Your task to perform on an android device: What's on my calendar today? Image 0: 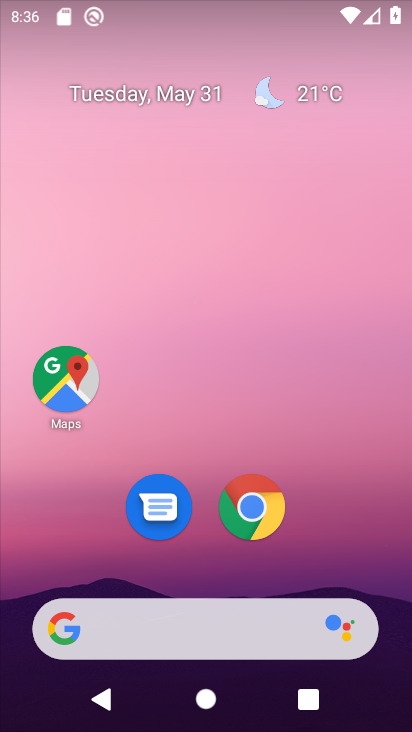
Step 0: drag from (263, 688) to (158, 118)
Your task to perform on an android device: What's on my calendar today? Image 1: 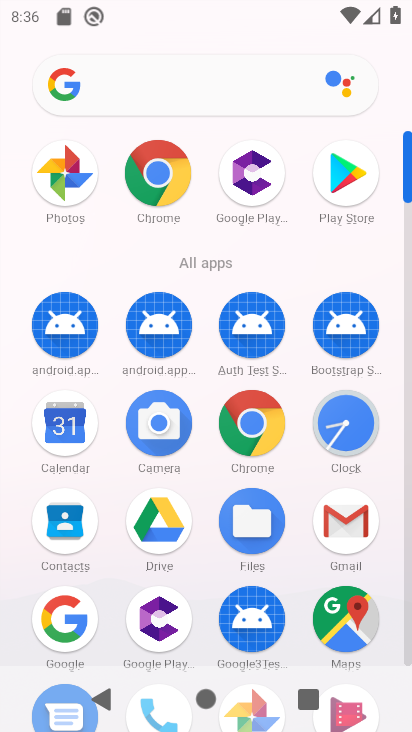
Step 1: click (57, 426)
Your task to perform on an android device: What's on my calendar today? Image 2: 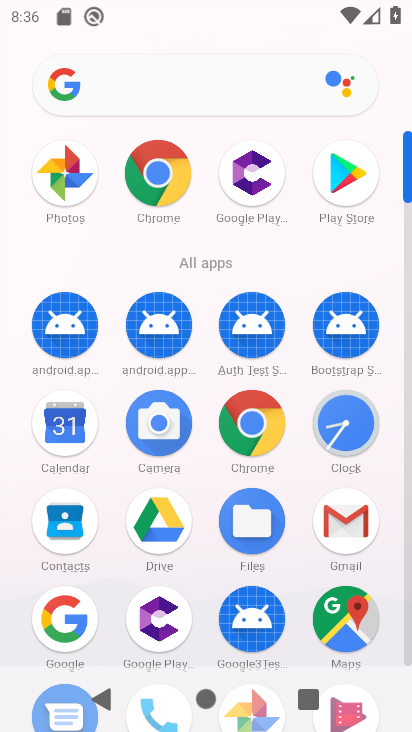
Step 2: click (58, 425)
Your task to perform on an android device: What's on my calendar today? Image 3: 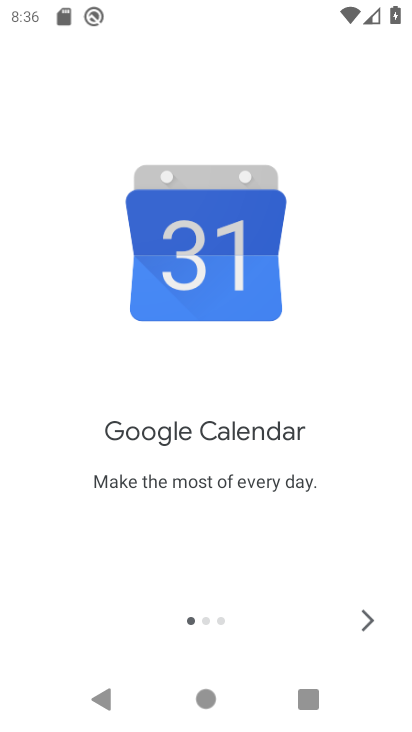
Step 3: click (379, 616)
Your task to perform on an android device: What's on my calendar today? Image 4: 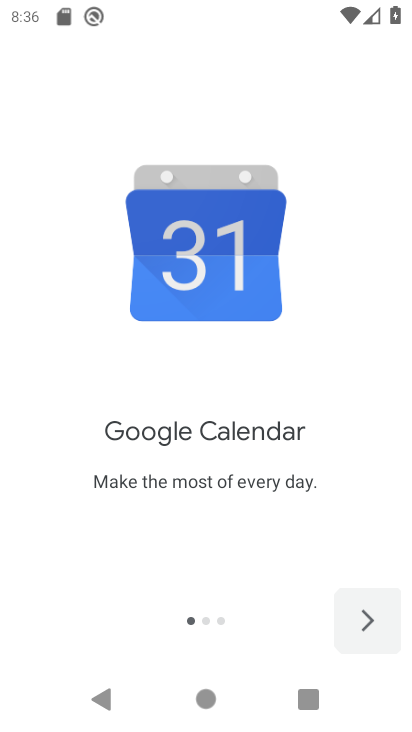
Step 4: click (379, 616)
Your task to perform on an android device: What's on my calendar today? Image 5: 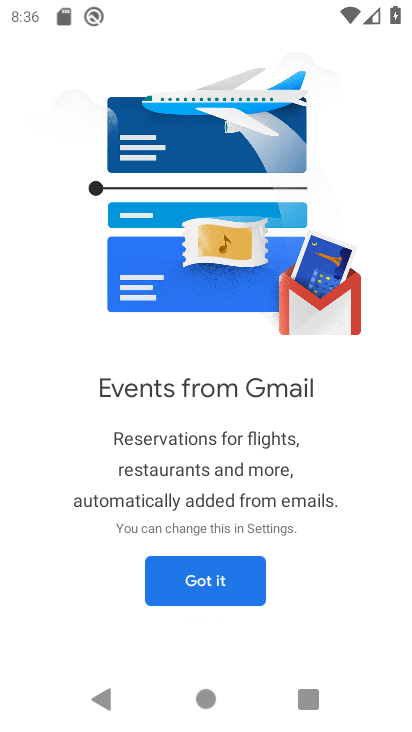
Step 5: click (378, 622)
Your task to perform on an android device: What's on my calendar today? Image 6: 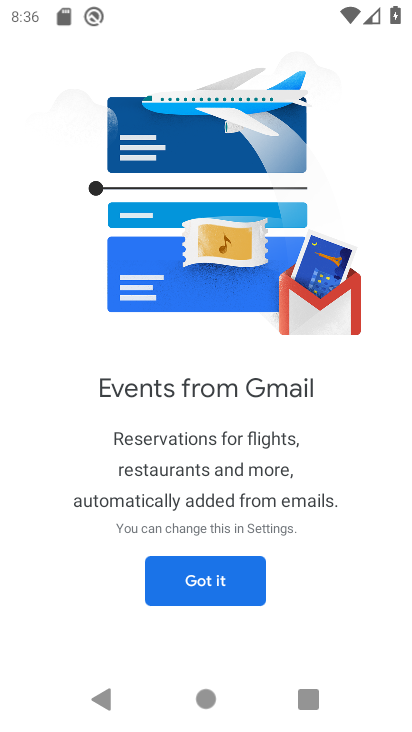
Step 6: click (216, 577)
Your task to perform on an android device: What's on my calendar today? Image 7: 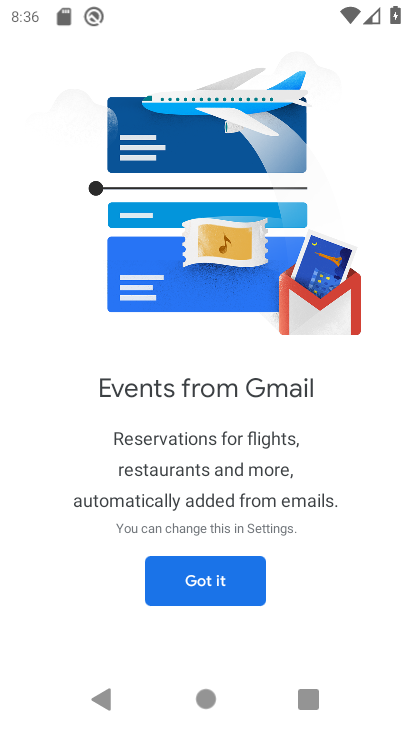
Step 7: click (215, 576)
Your task to perform on an android device: What's on my calendar today? Image 8: 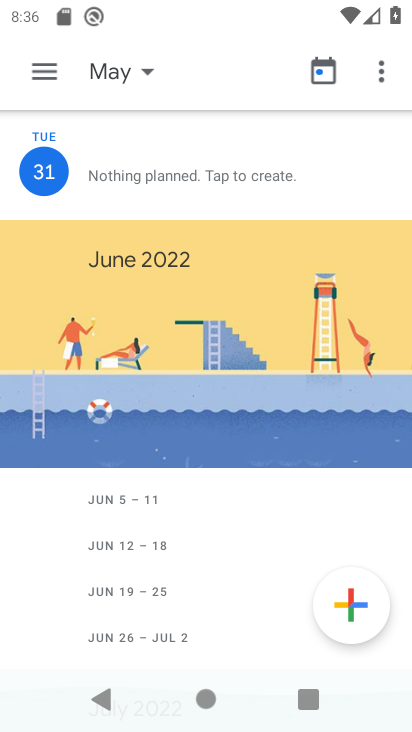
Step 8: click (143, 76)
Your task to perform on an android device: What's on my calendar today? Image 9: 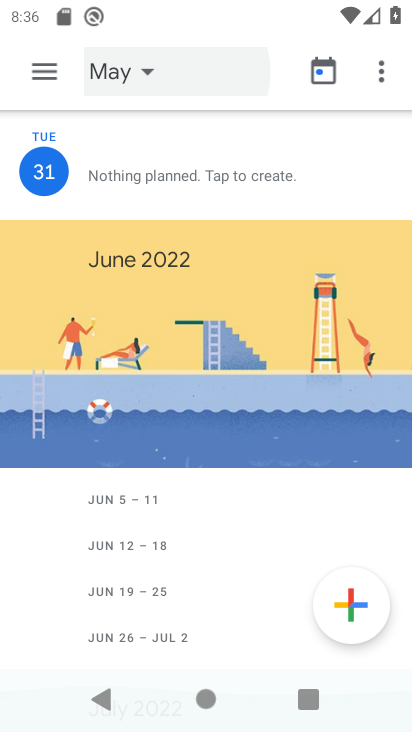
Step 9: click (144, 75)
Your task to perform on an android device: What's on my calendar today? Image 10: 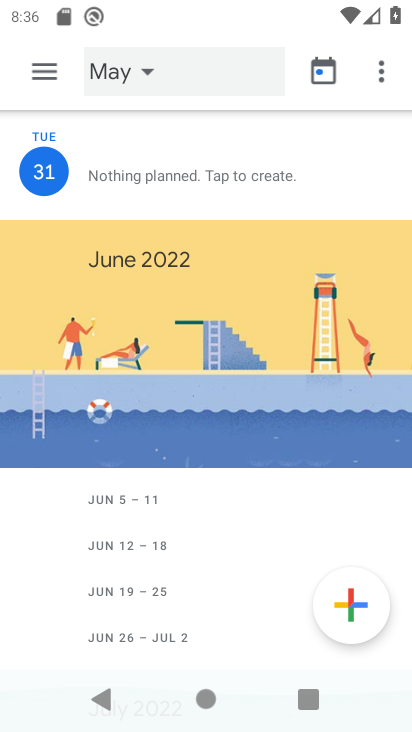
Step 10: click (145, 74)
Your task to perform on an android device: What's on my calendar today? Image 11: 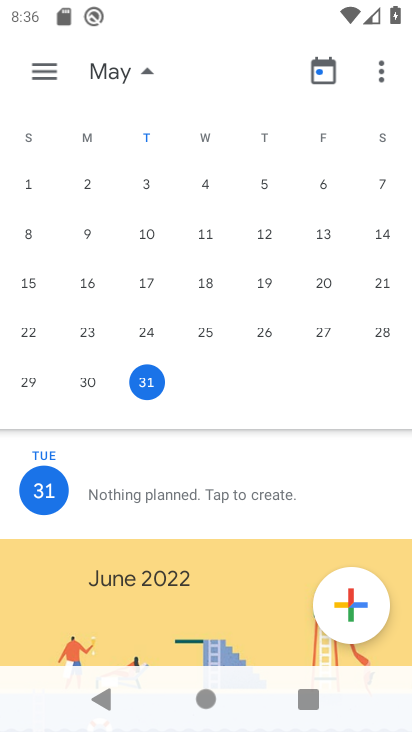
Step 11: drag from (300, 278) to (43, 336)
Your task to perform on an android device: What's on my calendar today? Image 12: 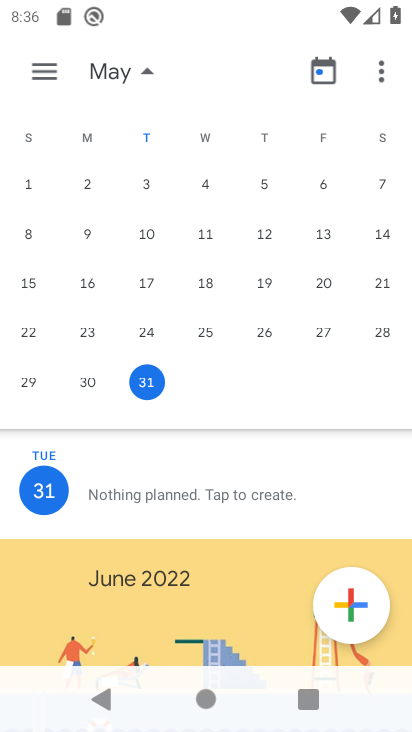
Step 12: drag from (278, 307) to (71, 338)
Your task to perform on an android device: What's on my calendar today? Image 13: 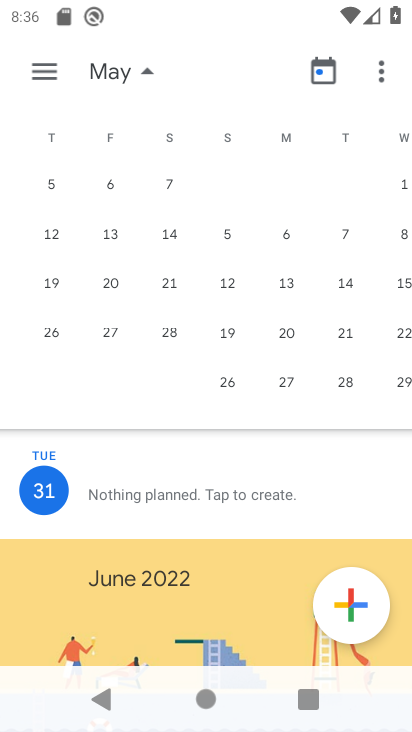
Step 13: drag from (248, 273) to (17, 338)
Your task to perform on an android device: What's on my calendar today? Image 14: 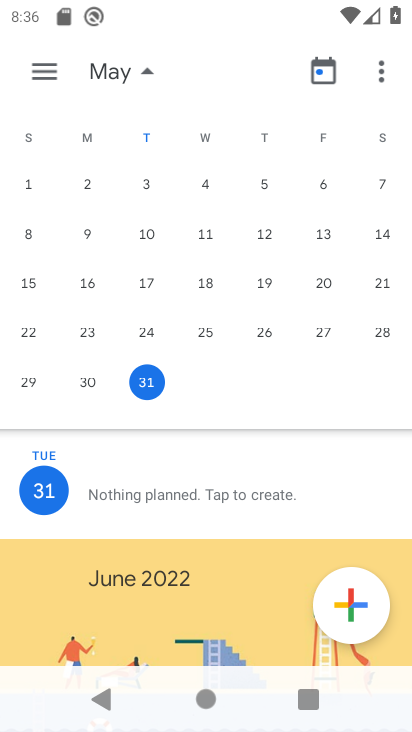
Step 14: click (271, 227)
Your task to perform on an android device: What's on my calendar today? Image 15: 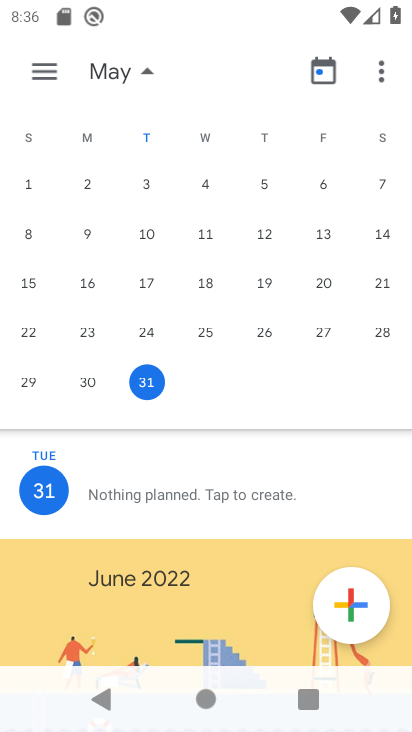
Step 15: task complete